Your task to perform on an android device: turn on the 12-hour format for clock Image 0: 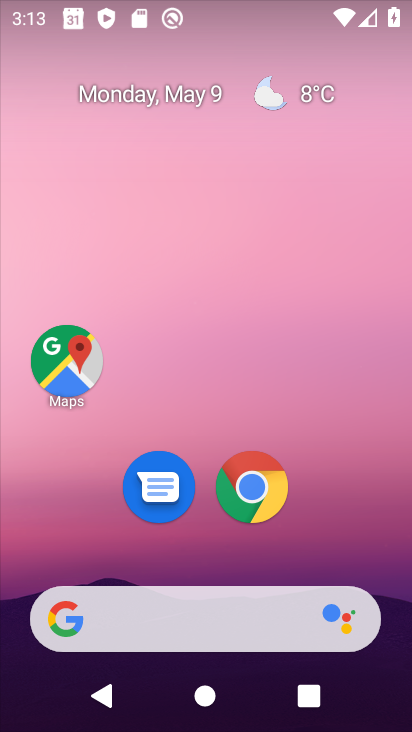
Step 0: drag from (206, 565) to (243, 136)
Your task to perform on an android device: turn on the 12-hour format for clock Image 1: 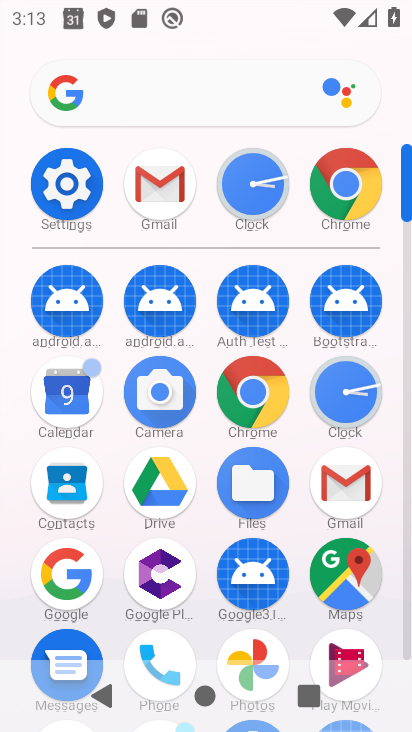
Step 1: click (340, 390)
Your task to perform on an android device: turn on the 12-hour format for clock Image 2: 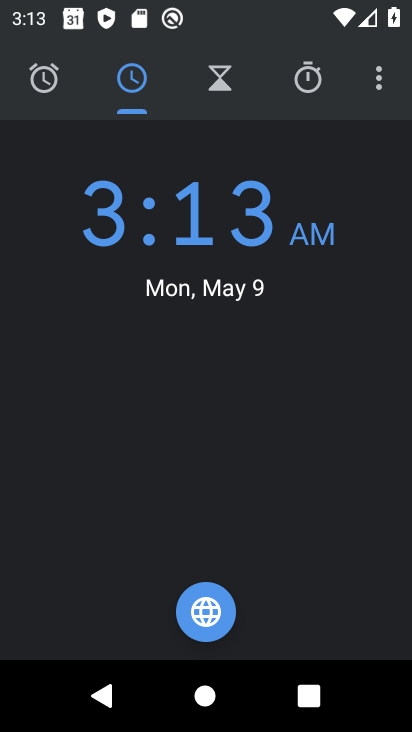
Step 2: click (377, 87)
Your task to perform on an android device: turn on the 12-hour format for clock Image 3: 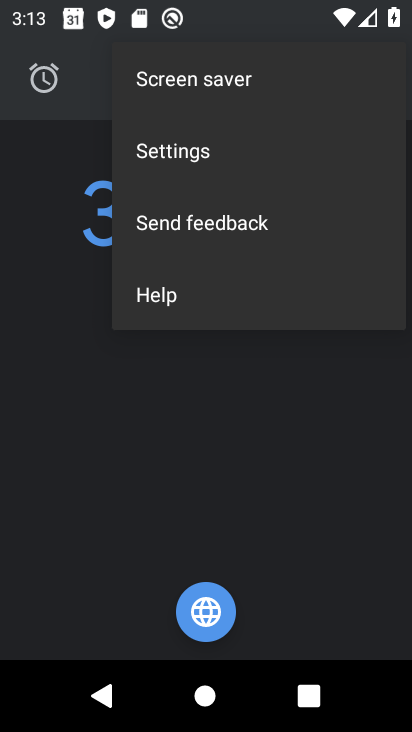
Step 3: click (222, 156)
Your task to perform on an android device: turn on the 12-hour format for clock Image 4: 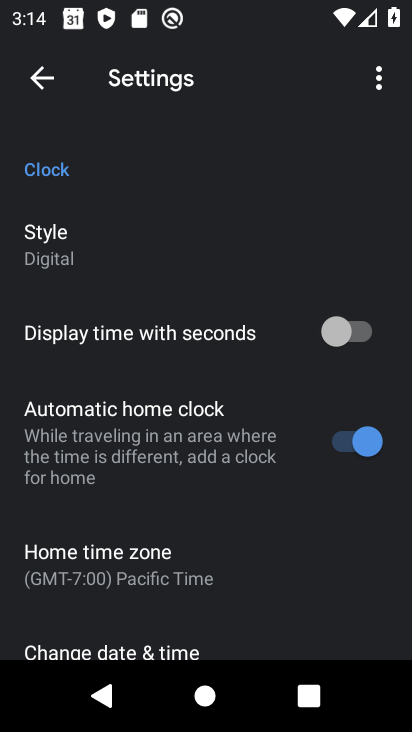
Step 4: click (212, 642)
Your task to perform on an android device: turn on the 12-hour format for clock Image 5: 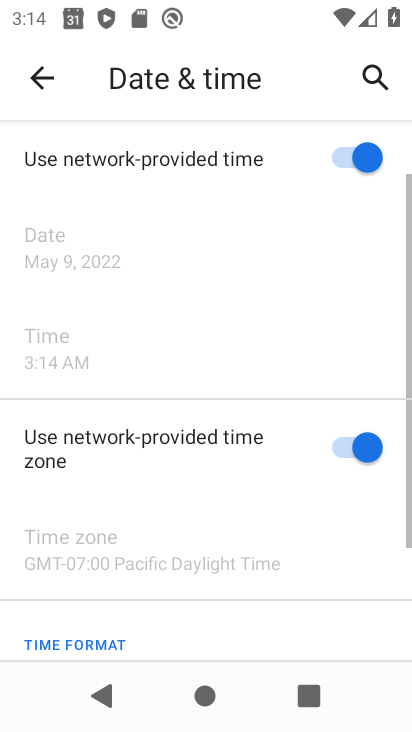
Step 5: task complete